Your task to perform on an android device: toggle location history Image 0: 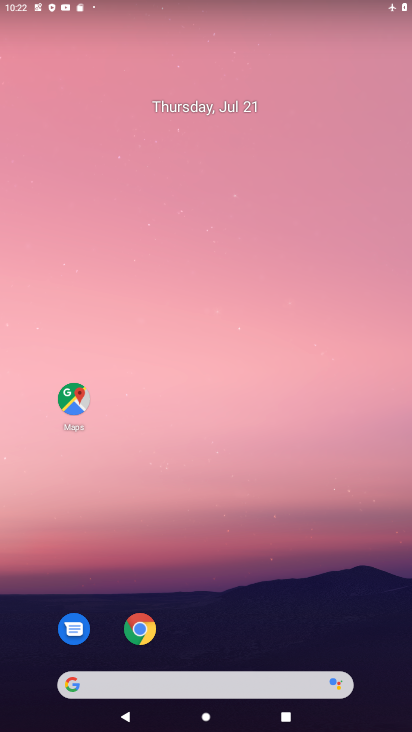
Step 0: drag from (226, 416) to (199, 265)
Your task to perform on an android device: toggle location history Image 1: 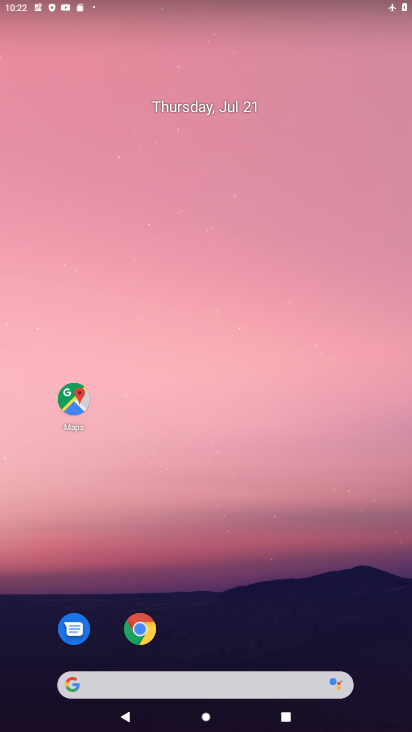
Step 1: drag from (197, 650) to (241, 2)
Your task to perform on an android device: toggle location history Image 2: 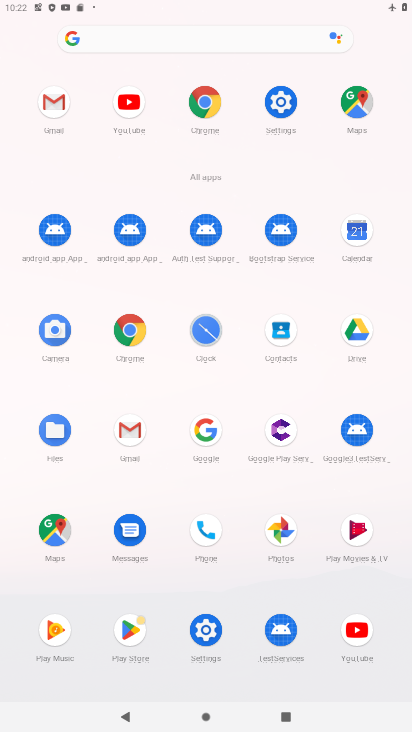
Step 2: click (288, 115)
Your task to perform on an android device: toggle location history Image 3: 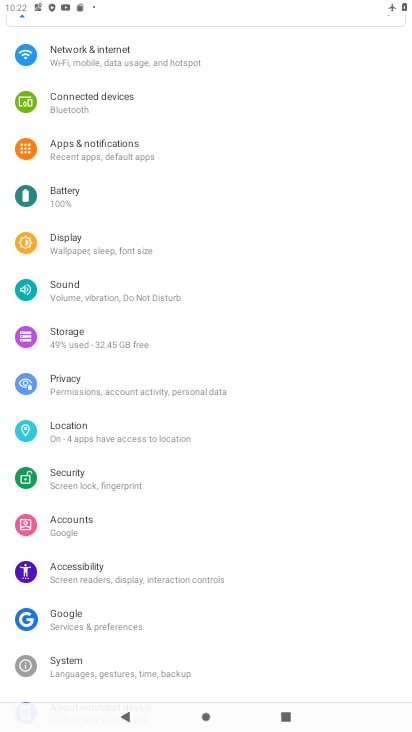
Step 3: click (83, 436)
Your task to perform on an android device: toggle location history Image 4: 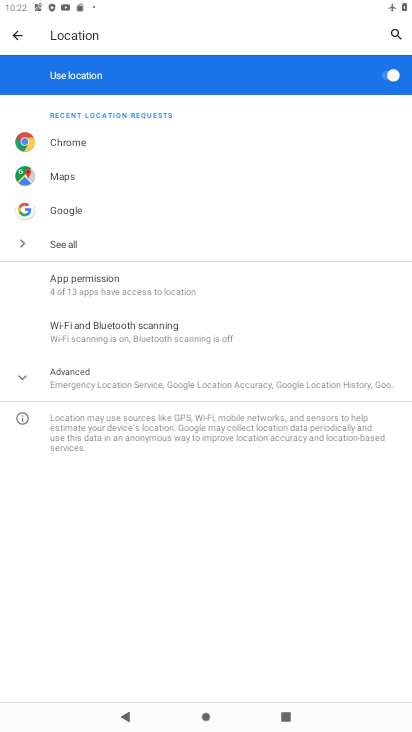
Step 4: click (62, 387)
Your task to perform on an android device: toggle location history Image 5: 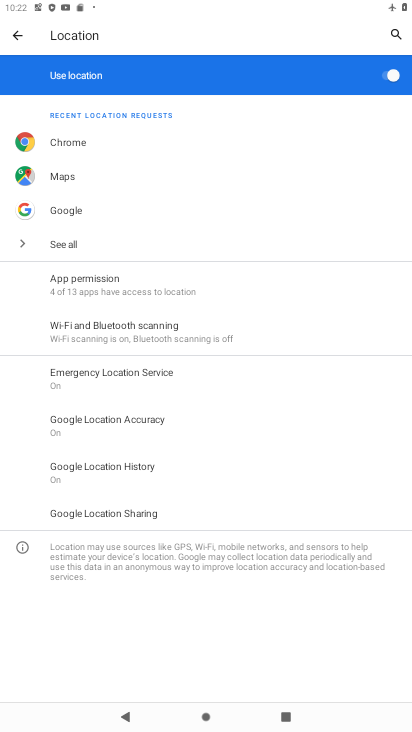
Step 5: click (101, 478)
Your task to perform on an android device: toggle location history Image 6: 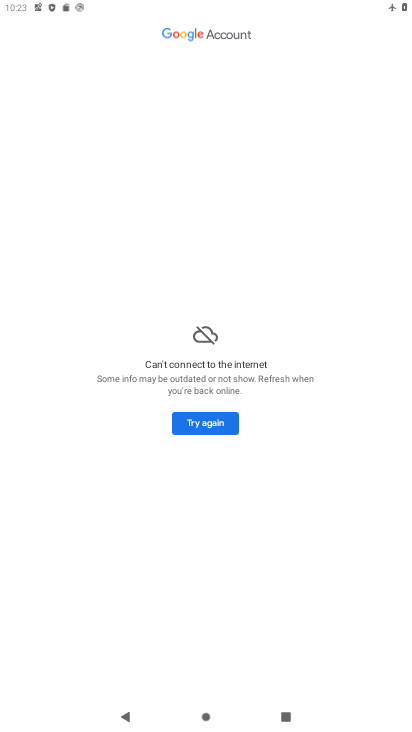
Step 6: drag from (205, 6) to (151, 550)
Your task to perform on an android device: toggle location history Image 7: 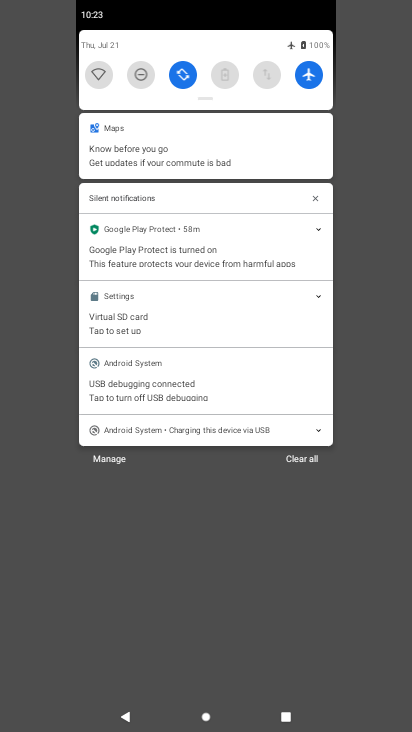
Step 7: click (314, 85)
Your task to perform on an android device: toggle location history Image 8: 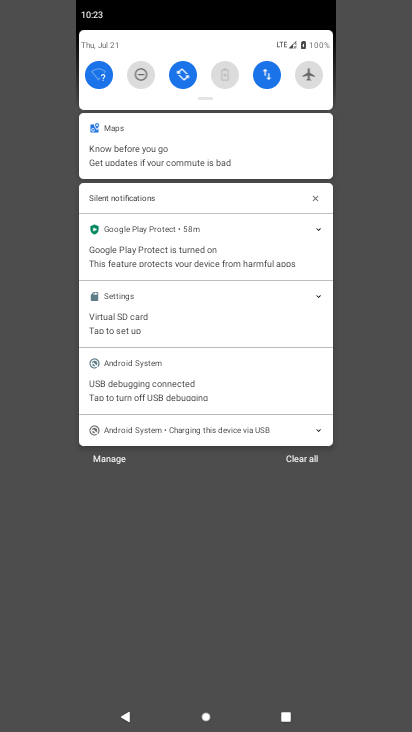
Step 8: task complete